Your task to perform on an android device: Go to Wikipedia Image 0: 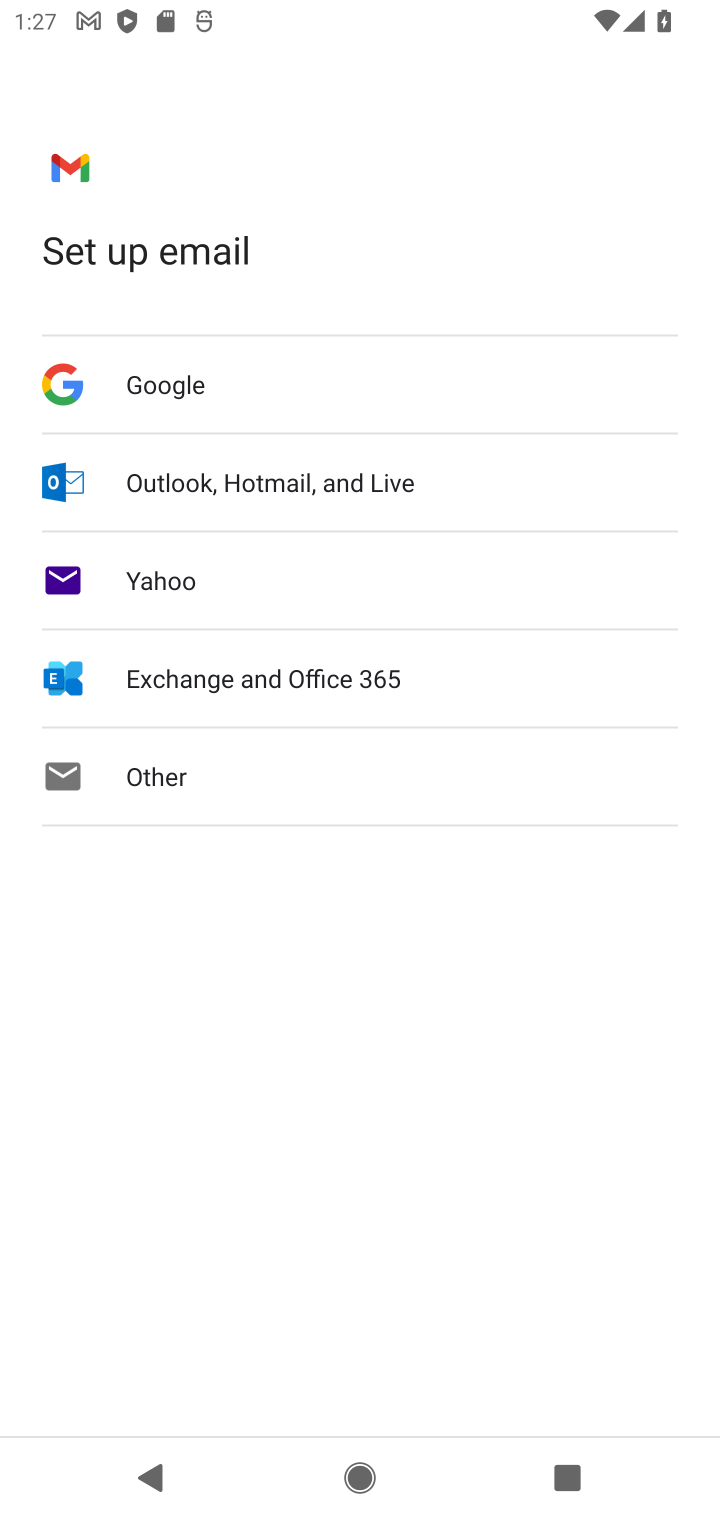
Step 0: press home button
Your task to perform on an android device: Go to Wikipedia Image 1: 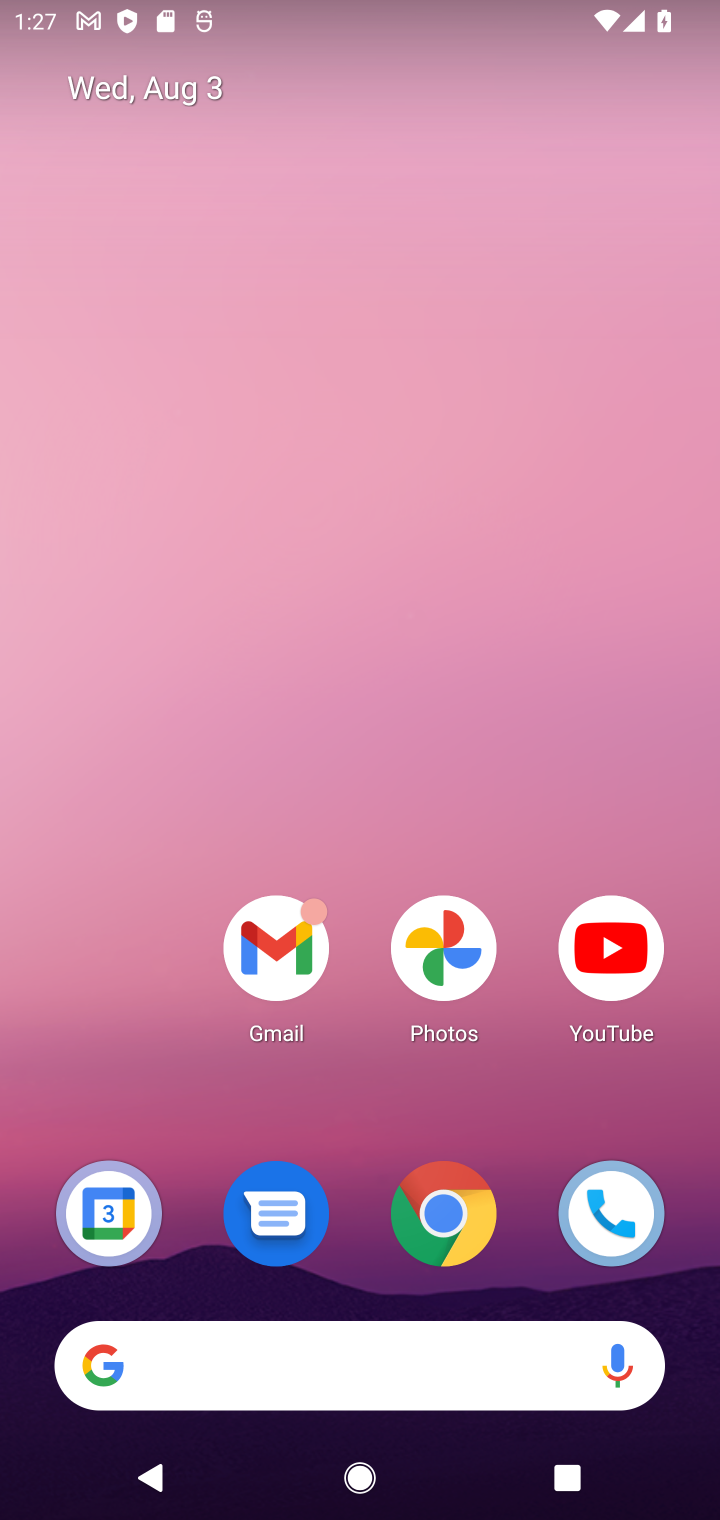
Step 1: drag from (479, 1395) to (714, 784)
Your task to perform on an android device: Go to Wikipedia Image 2: 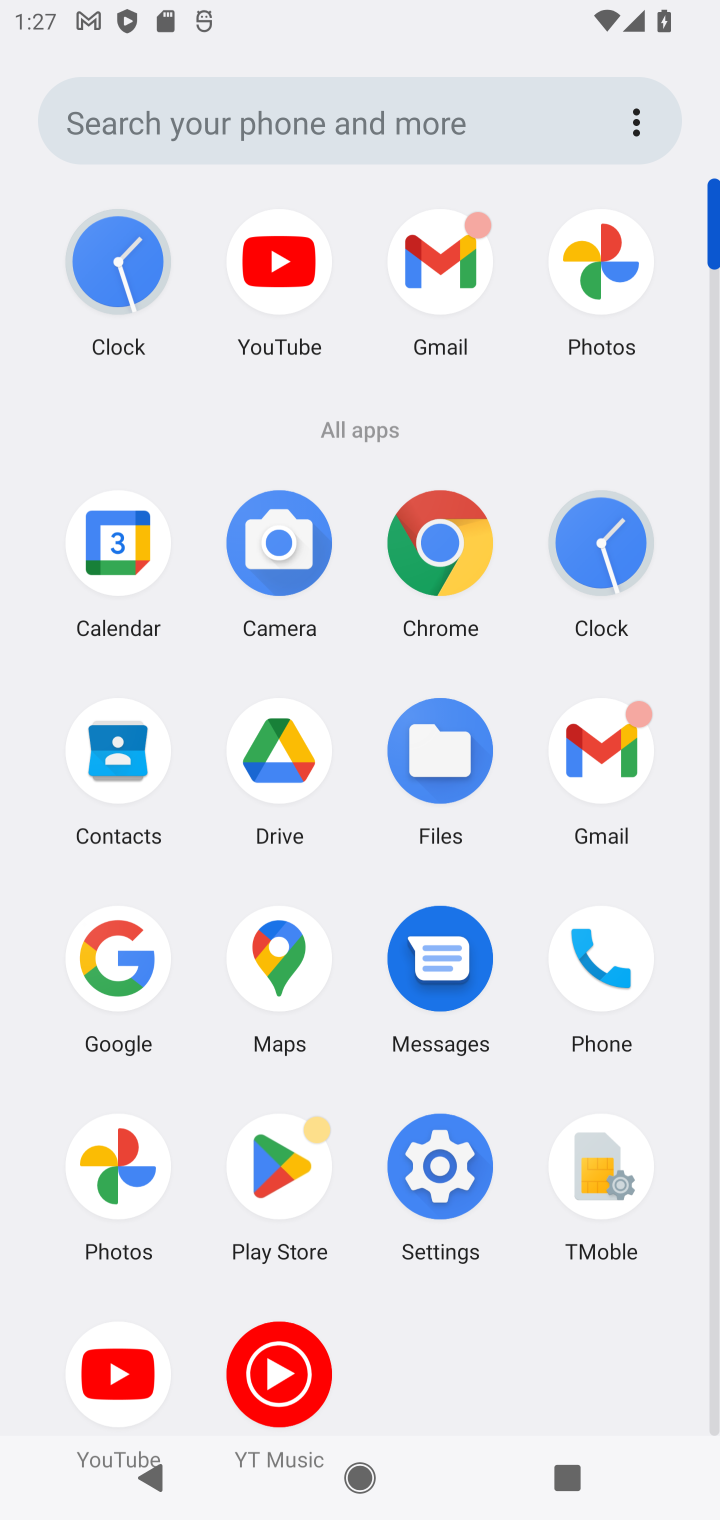
Step 2: click (444, 563)
Your task to perform on an android device: Go to Wikipedia Image 3: 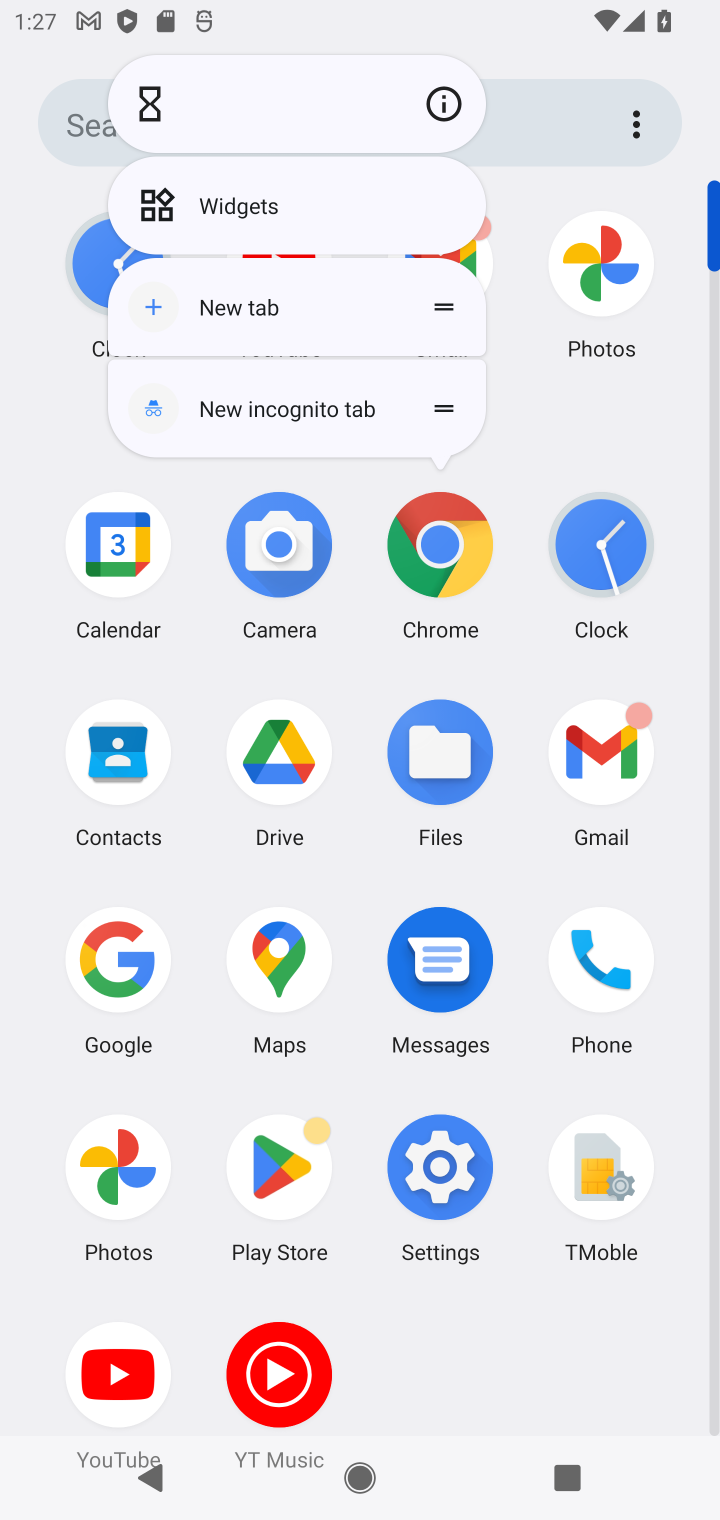
Step 3: click (439, 560)
Your task to perform on an android device: Go to Wikipedia Image 4: 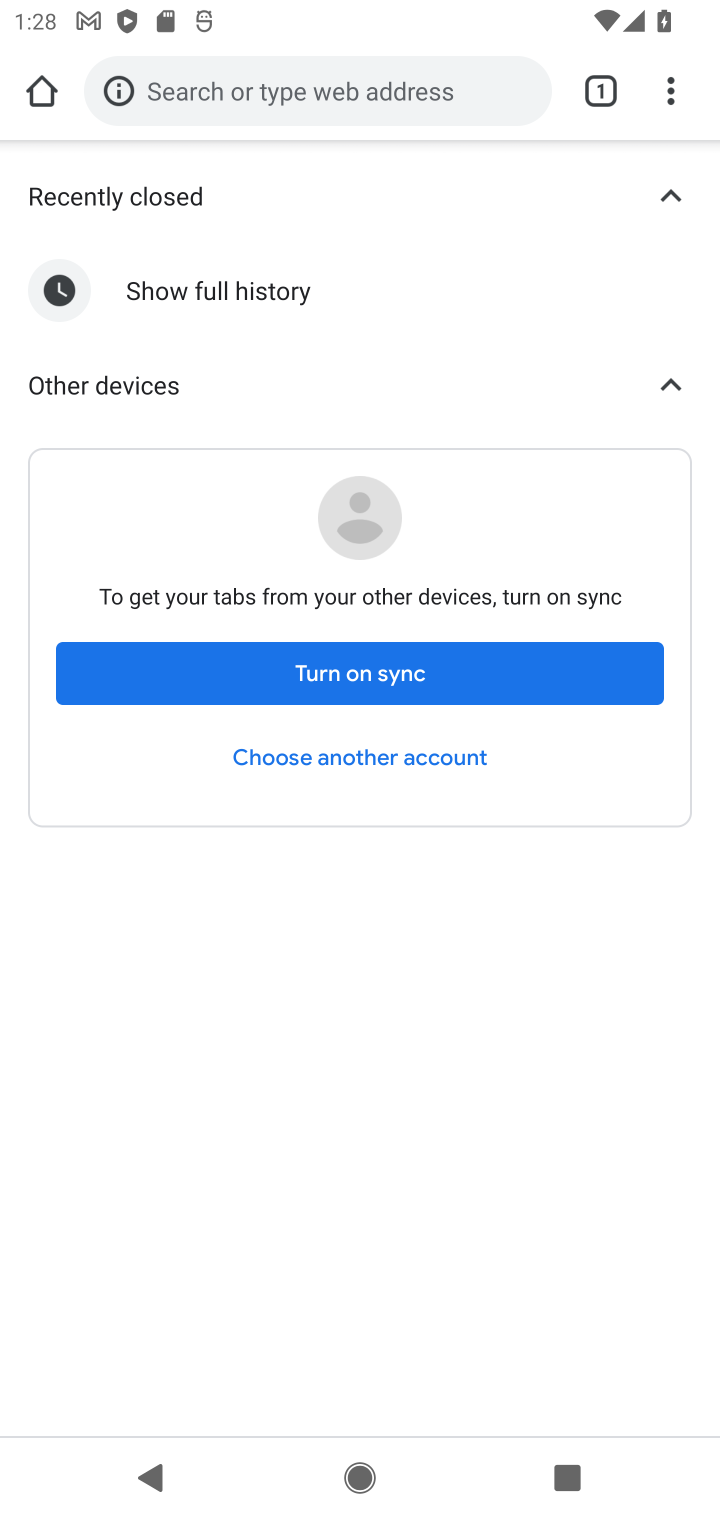
Step 4: click (426, 69)
Your task to perform on an android device: Go to Wikipedia Image 5: 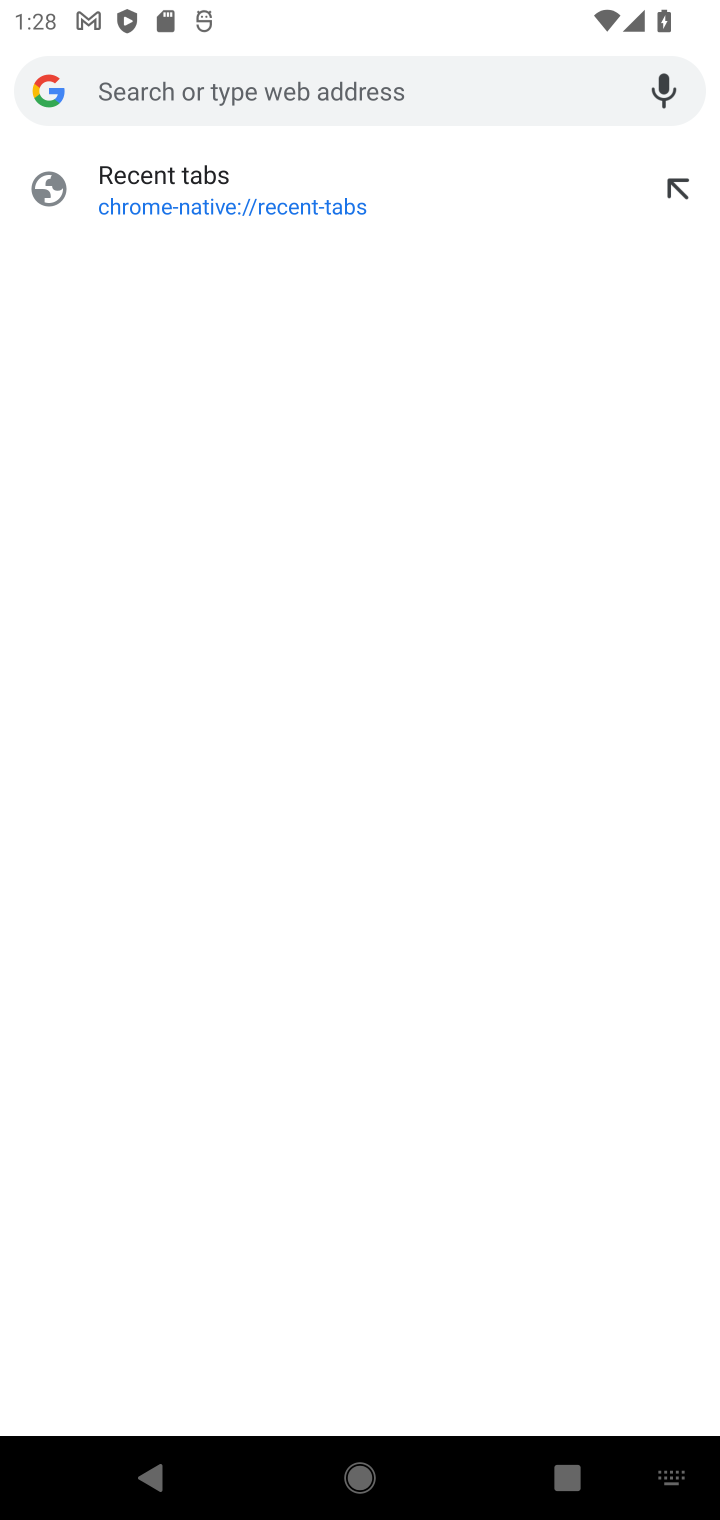
Step 5: type "wikipedia"
Your task to perform on an android device: Go to Wikipedia Image 6: 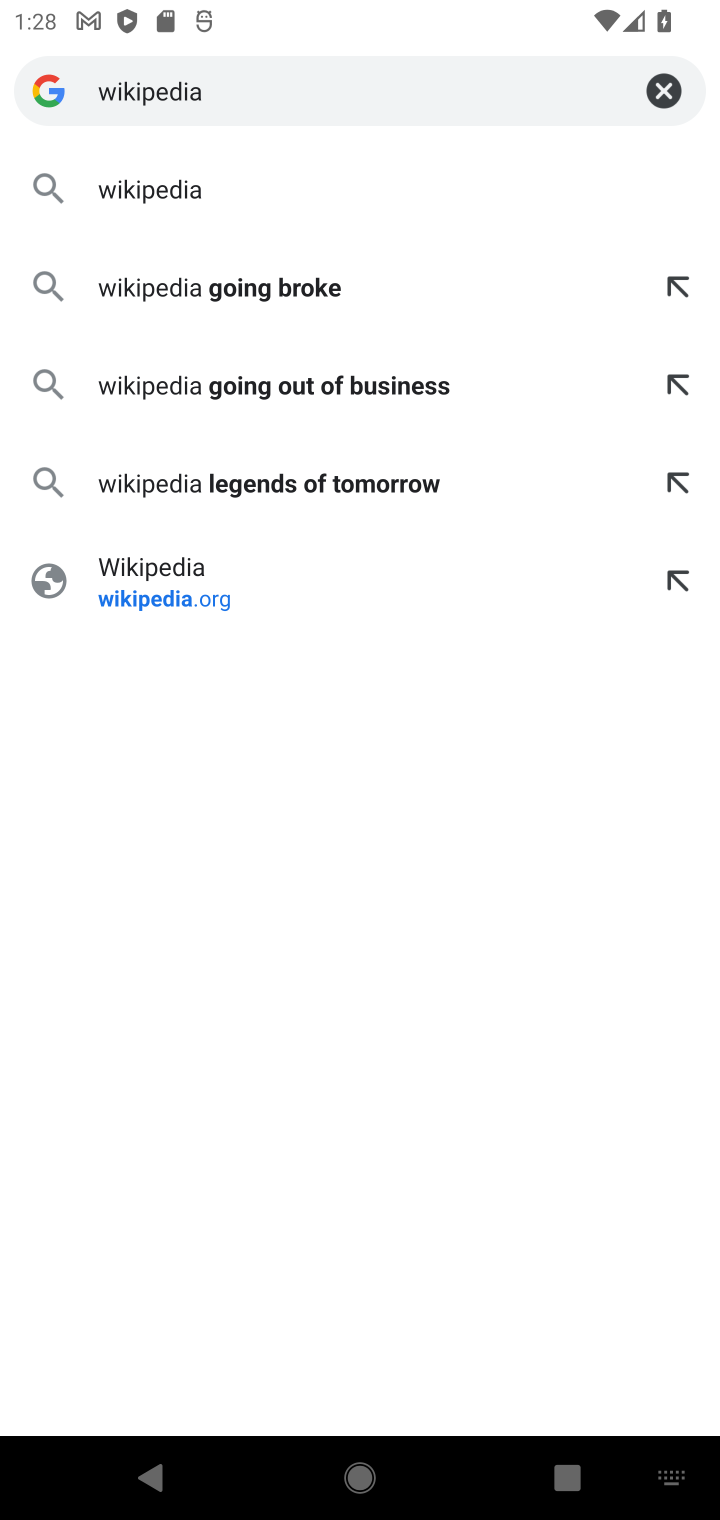
Step 6: click (139, 196)
Your task to perform on an android device: Go to Wikipedia Image 7: 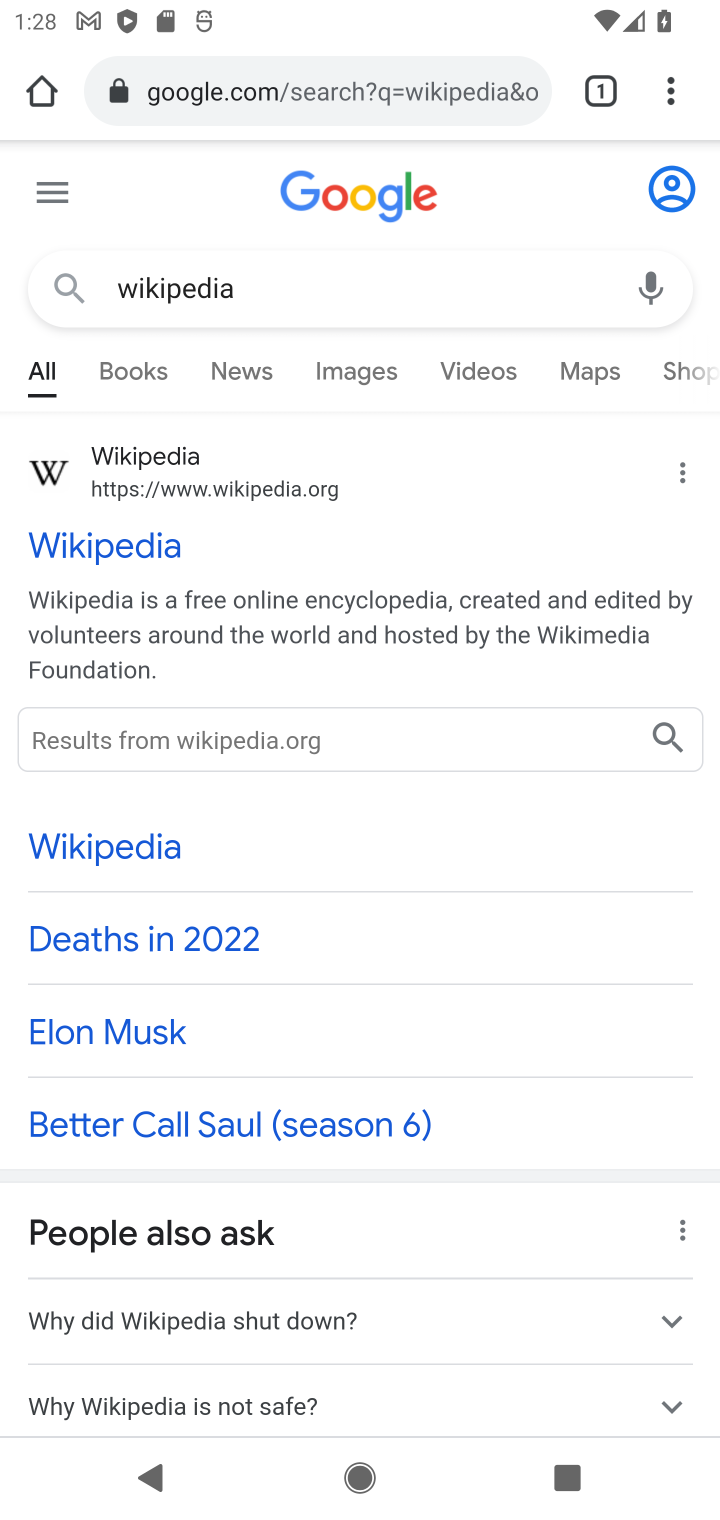
Step 7: task complete